Your task to perform on an android device: Open Google Chrome Image 0: 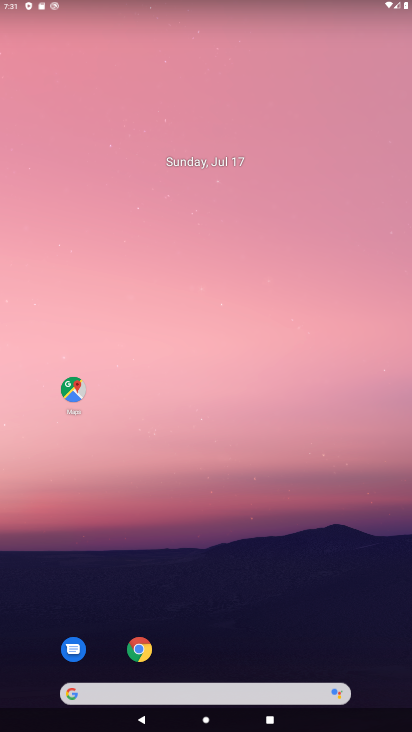
Step 0: click (145, 659)
Your task to perform on an android device: Open Google Chrome Image 1: 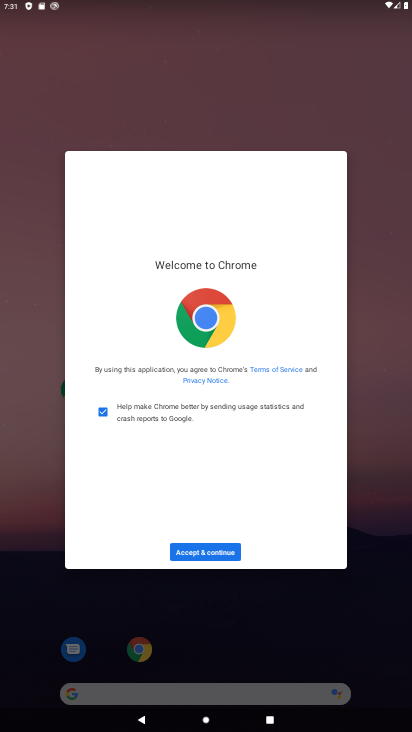
Step 1: click (221, 556)
Your task to perform on an android device: Open Google Chrome Image 2: 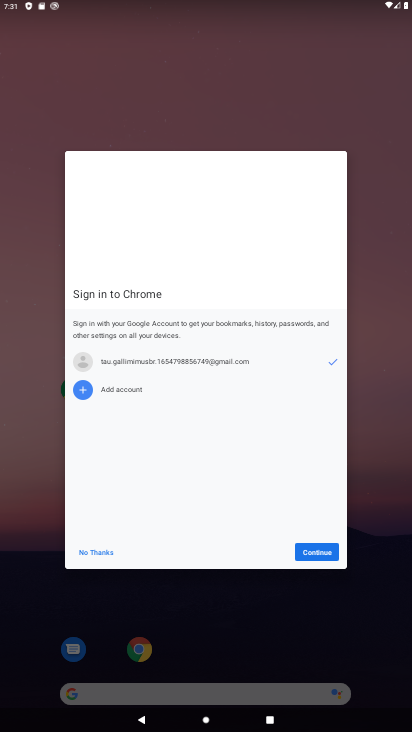
Step 2: click (328, 553)
Your task to perform on an android device: Open Google Chrome Image 3: 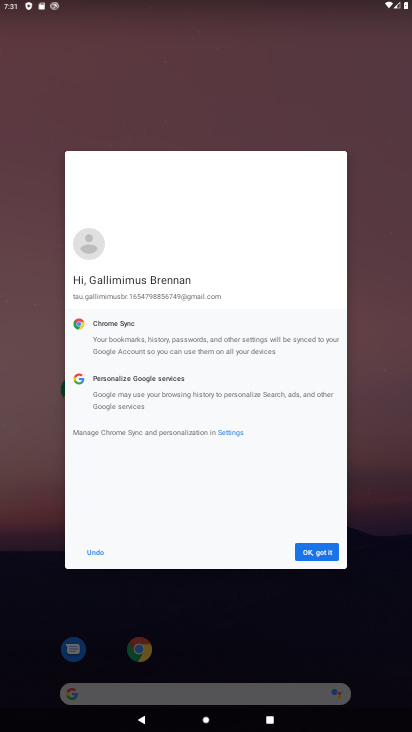
Step 3: click (329, 553)
Your task to perform on an android device: Open Google Chrome Image 4: 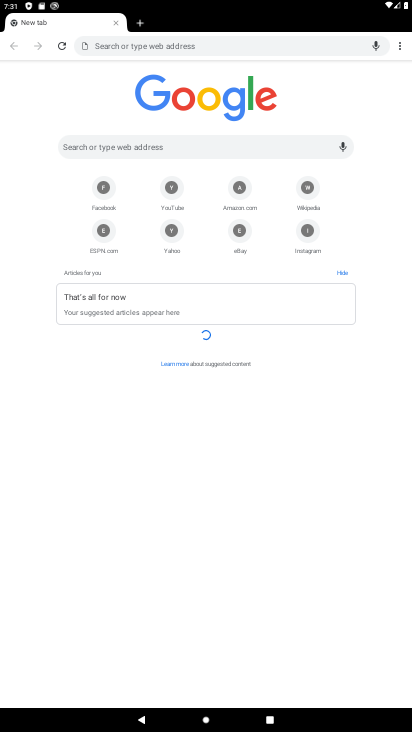
Step 4: task complete